Your task to perform on an android device: Open settings on Google Maps Image 0: 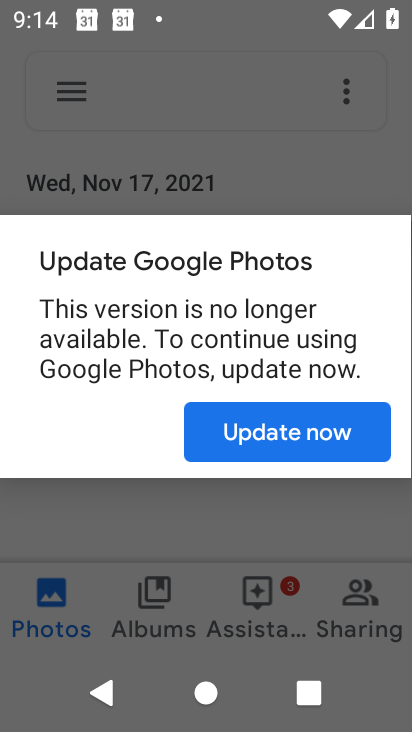
Step 0: press home button
Your task to perform on an android device: Open settings on Google Maps Image 1: 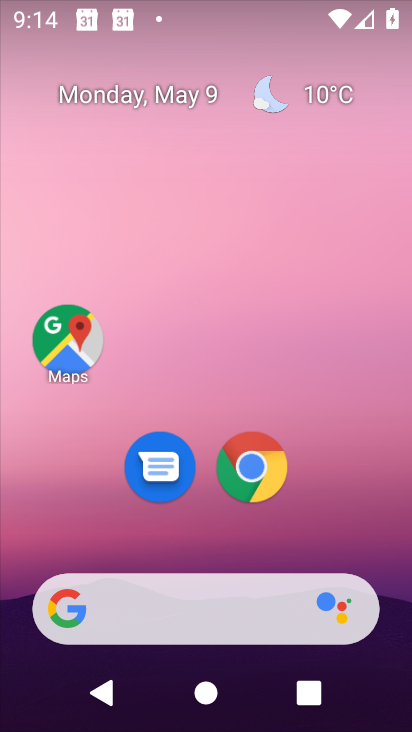
Step 1: click (59, 345)
Your task to perform on an android device: Open settings on Google Maps Image 2: 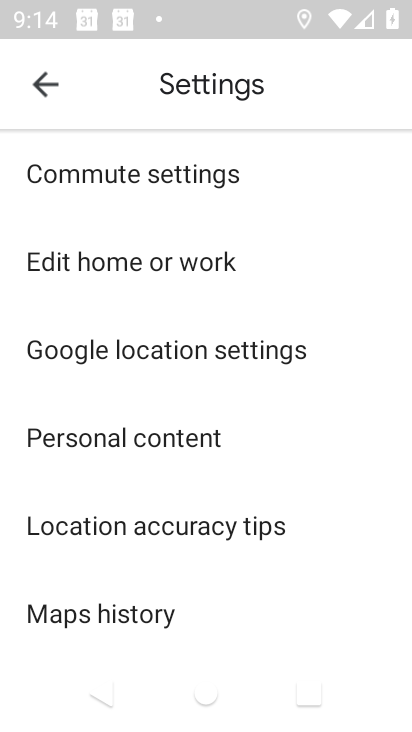
Step 2: task complete